Your task to perform on an android device: search for starred emails in the gmail app Image 0: 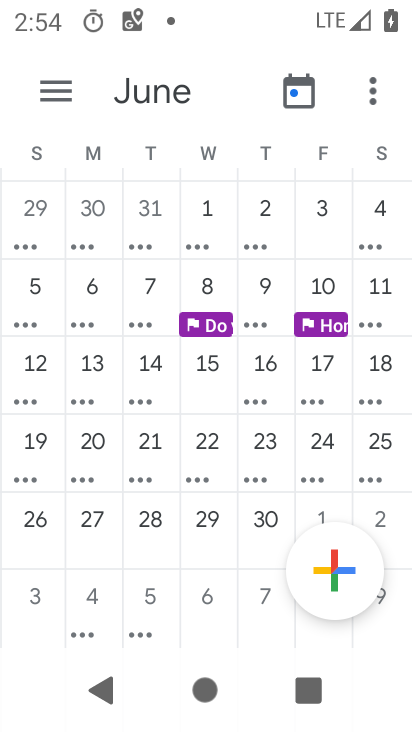
Step 0: press home button
Your task to perform on an android device: search for starred emails in the gmail app Image 1: 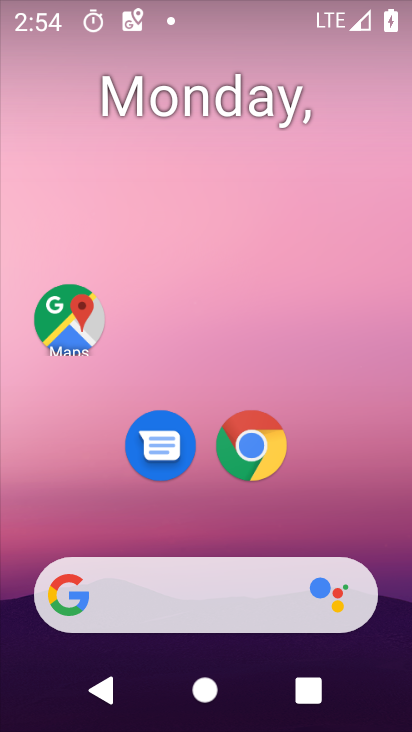
Step 1: drag from (175, 345) to (166, 274)
Your task to perform on an android device: search for starred emails in the gmail app Image 2: 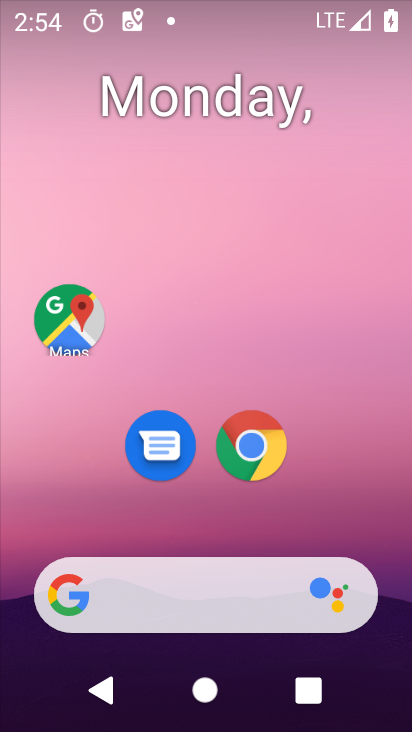
Step 2: drag from (204, 590) to (167, 162)
Your task to perform on an android device: search for starred emails in the gmail app Image 3: 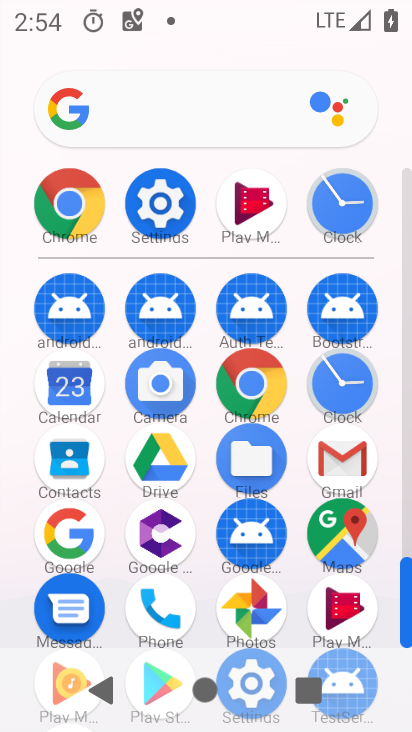
Step 3: click (339, 469)
Your task to perform on an android device: search for starred emails in the gmail app Image 4: 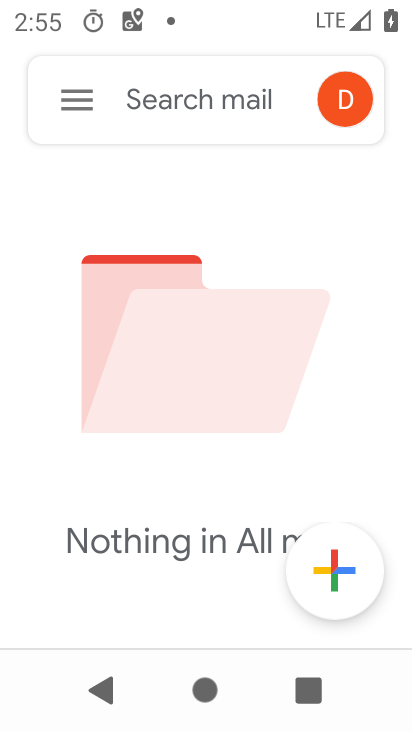
Step 4: click (77, 104)
Your task to perform on an android device: search for starred emails in the gmail app Image 5: 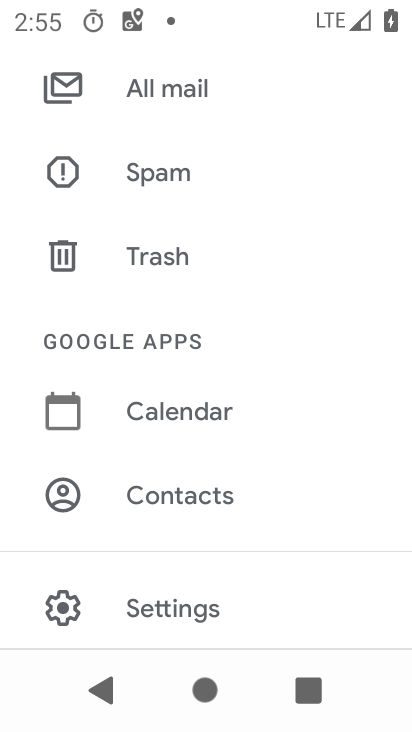
Step 5: drag from (152, 185) to (156, 676)
Your task to perform on an android device: search for starred emails in the gmail app Image 6: 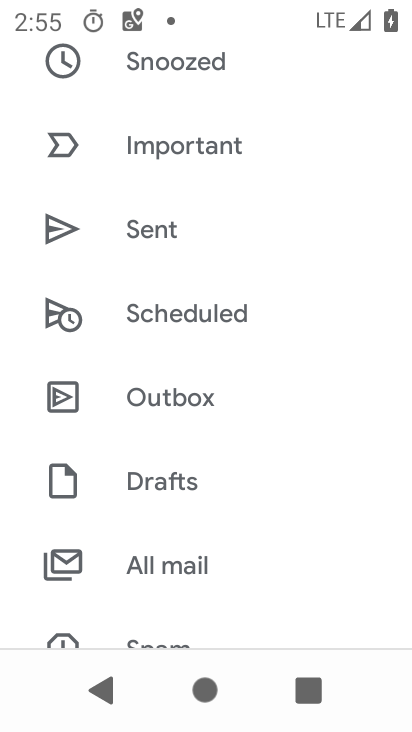
Step 6: drag from (155, 129) to (149, 585)
Your task to perform on an android device: search for starred emails in the gmail app Image 7: 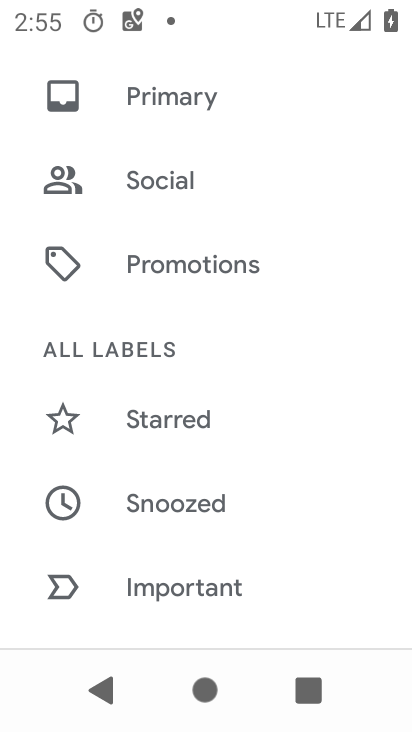
Step 7: click (139, 425)
Your task to perform on an android device: search for starred emails in the gmail app Image 8: 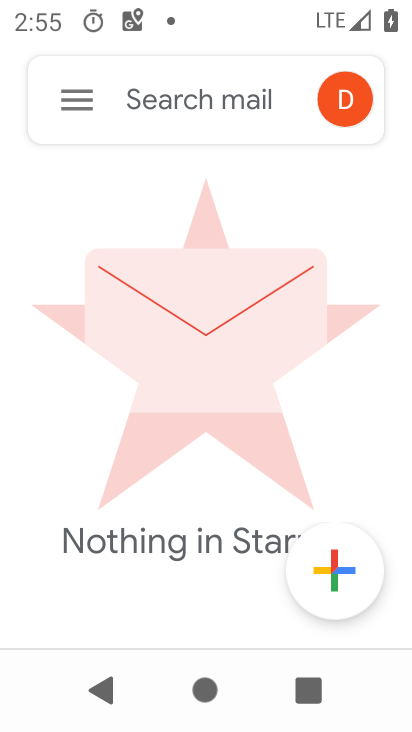
Step 8: task complete